Your task to perform on an android device: toggle data saver in the chrome app Image 0: 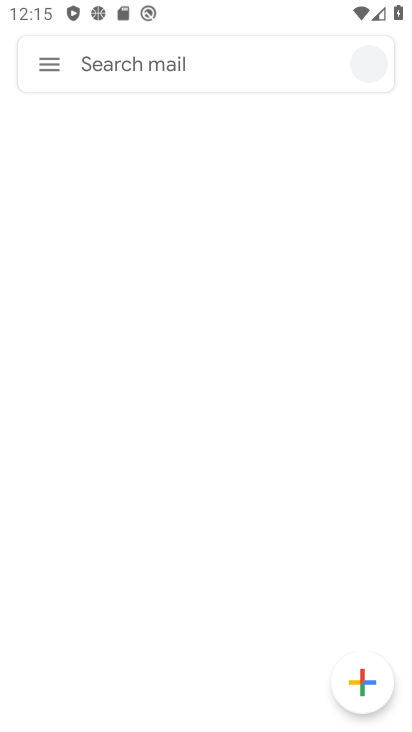
Step 0: click (311, 74)
Your task to perform on an android device: toggle data saver in the chrome app Image 1: 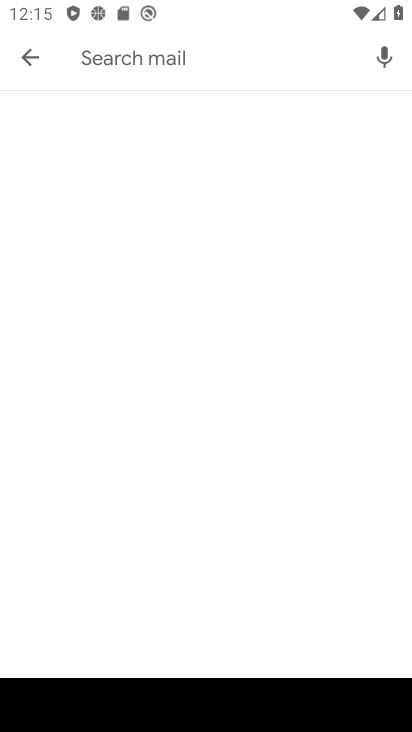
Step 1: press home button
Your task to perform on an android device: toggle data saver in the chrome app Image 2: 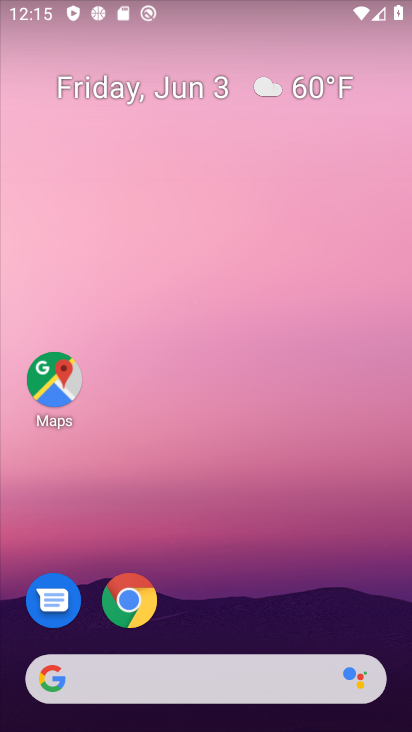
Step 2: click (131, 598)
Your task to perform on an android device: toggle data saver in the chrome app Image 3: 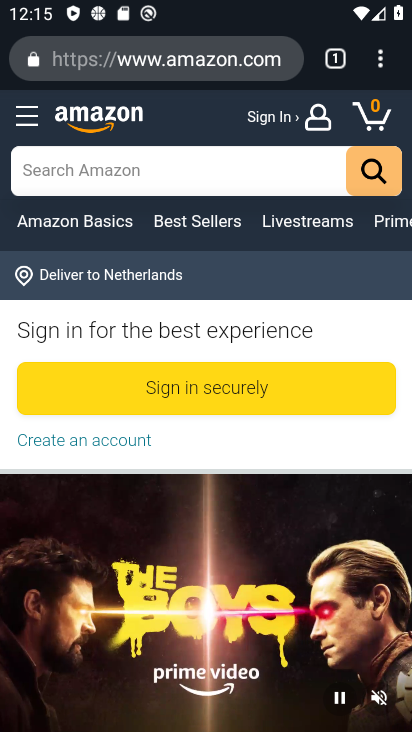
Step 3: drag from (382, 54) to (220, 633)
Your task to perform on an android device: toggle data saver in the chrome app Image 4: 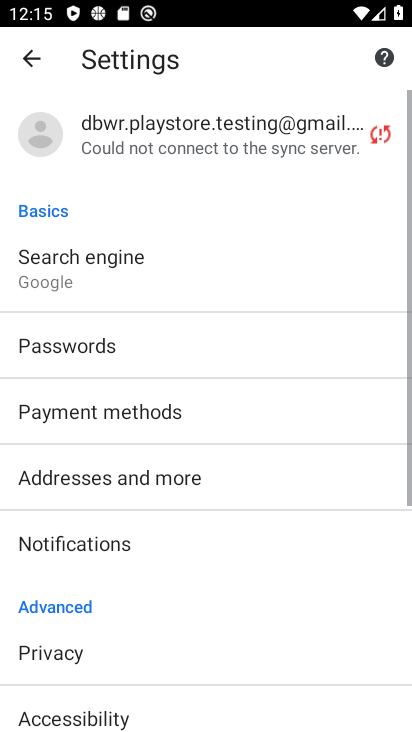
Step 4: drag from (215, 535) to (211, 127)
Your task to perform on an android device: toggle data saver in the chrome app Image 5: 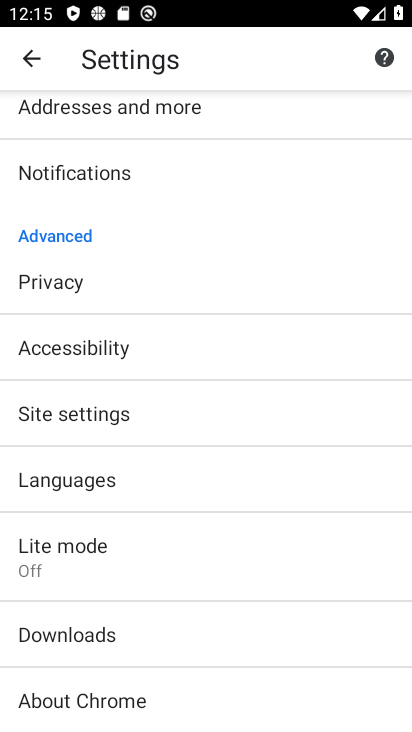
Step 5: click (68, 566)
Your task to perform on an android device: toggle data saver in the chrome app Image 6: 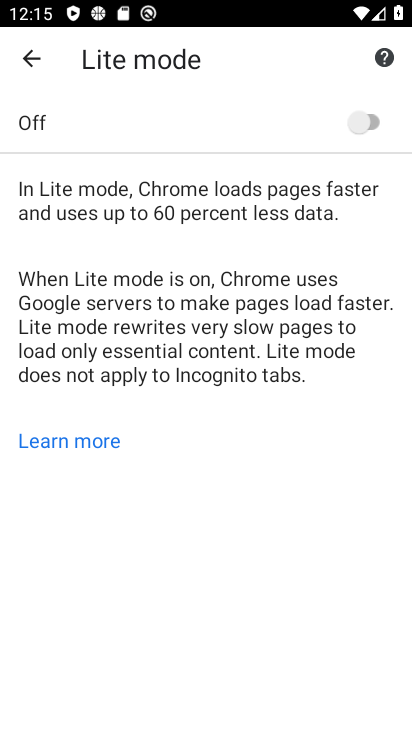
Step 6: click (380, 105)
Your task to perform on an android device: toggle data saver in the chrome app Image 7: 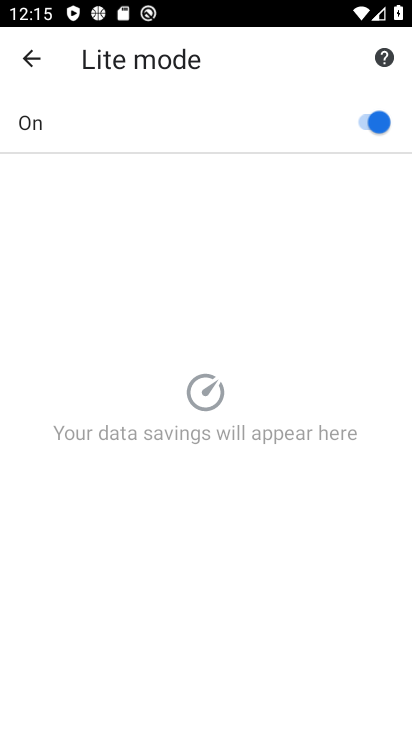
Step 7: task complete